Your task to perform on an android device: Open internet settings Image 0: 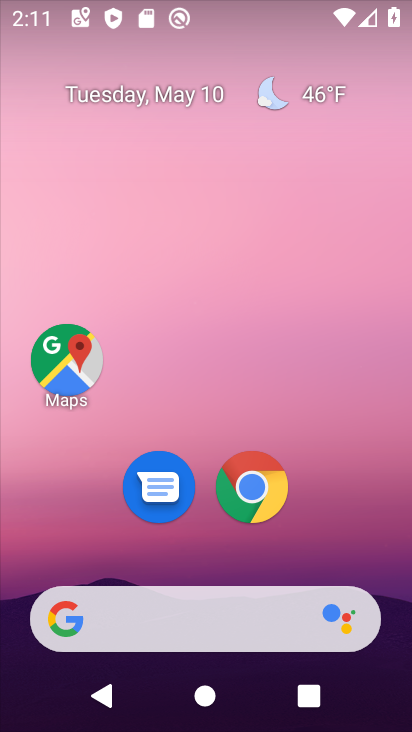
Step 0: drag from (326, 536) to (338, 78)
Your task to perform on an android device: Open internet settings Image 1: 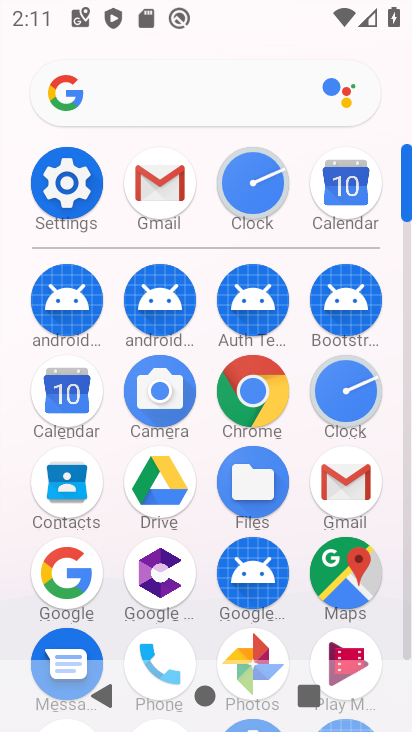
Step 1: click (60, 185)
Your task to perform on an android device: Open internet settings Image 2: 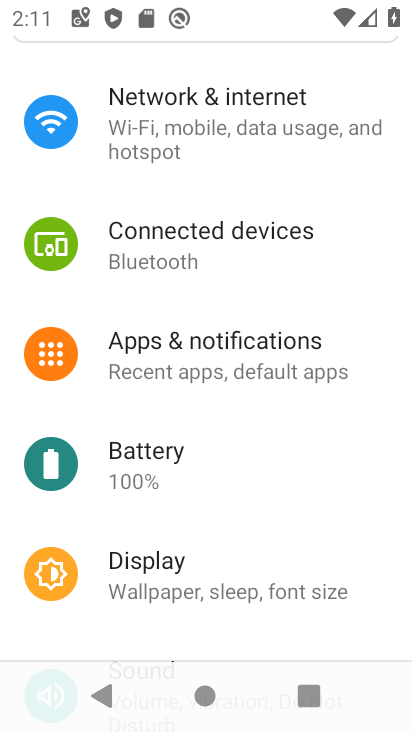
Step 2: drag from (256, 130) to (244, 529)
Your task to perform on an android device: Open internet settings Image 3: 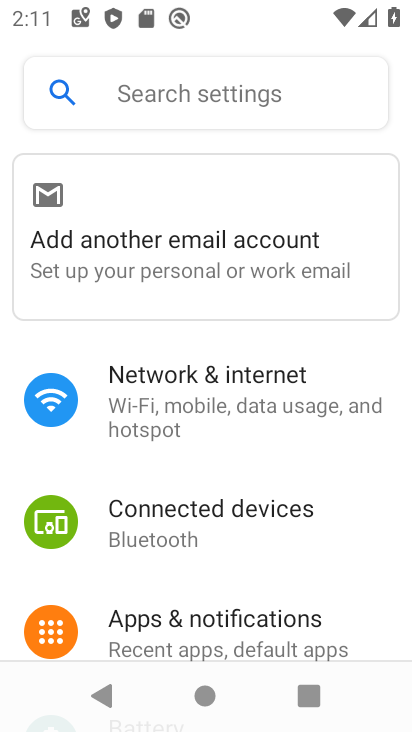
Step 3: click (244, 417)
Your task to perform on an android device: Open internet settings Image 4: 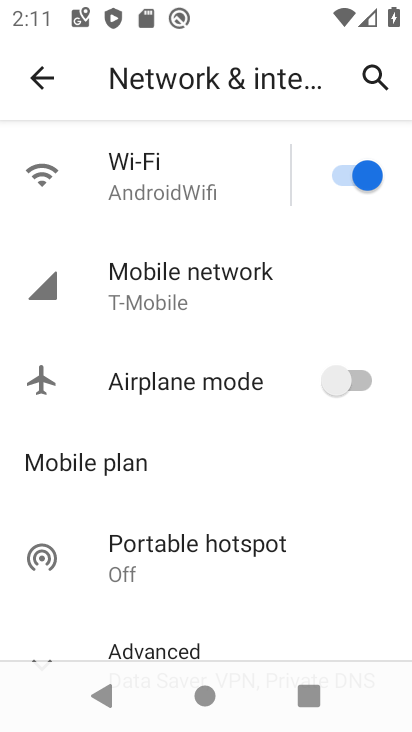
Step 4: task complete